Your task to perform on an android device: Find coffee shops on Maps Image 0: 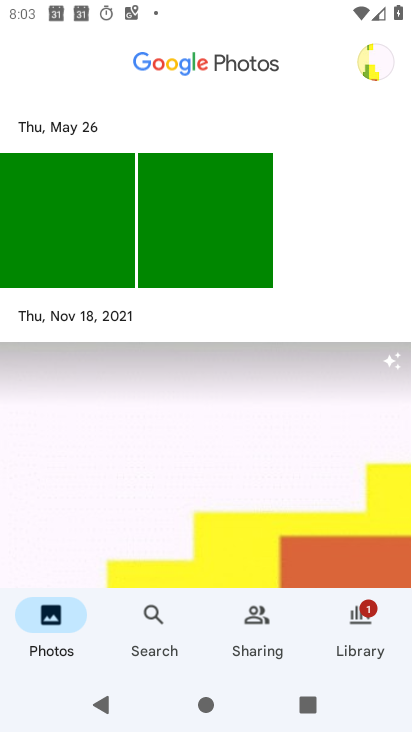
Step 0: press home button
Your task to perform on an android device: Find coffee shops on Maps Image 1: 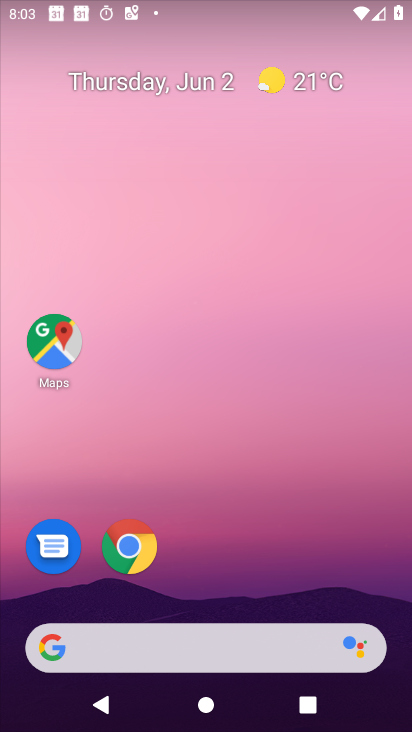
Step 1: drag from (293, 478) to (286, 58)
Your task to perform on an android device: Find coffee shops on Maps Image 2: 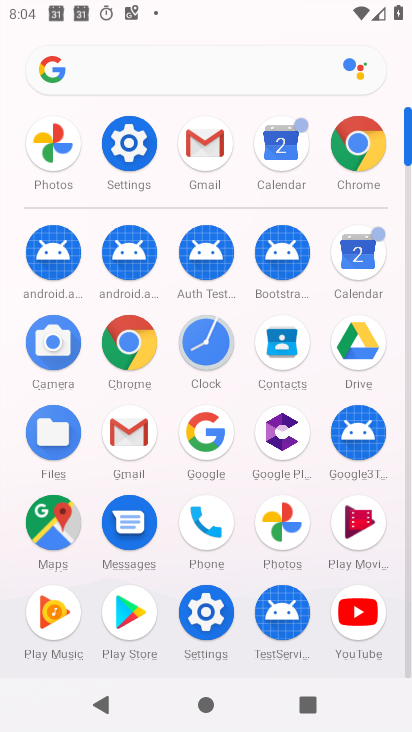
Step 2: click (60, 527)
Your task to perform on an android device: Find coffee shops on Maps Image 3: 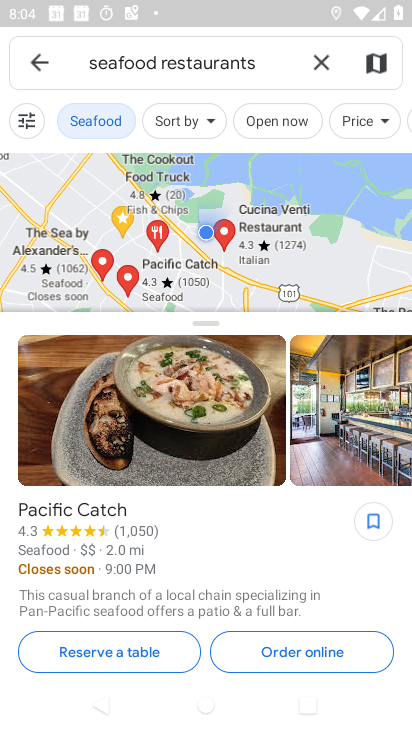
Step 3: click (314, 51)
Your task to perform on an android device: Find coffee shops on Maps Image 4: 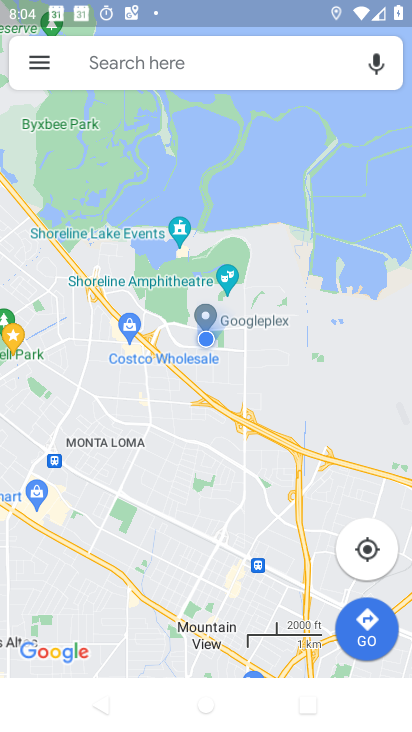
Step 4: click (259, 65)
Your task to perform on an android device: Find coffee shops on Maps Image 5: 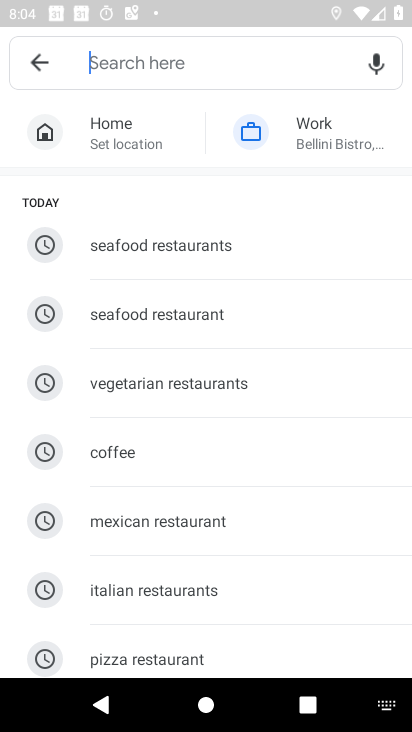
Step 5: type "coffee shop"
Your task to perform on an android device: Find coffee shops on Maps Image 6: 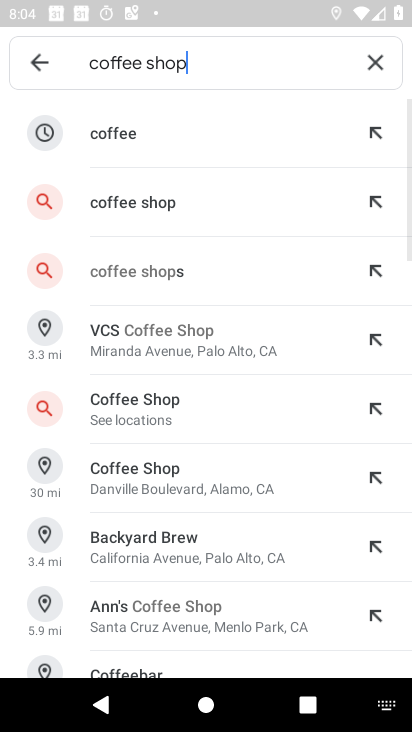
Step 6: click (217, 210)
Your task to perform on an android device: Find coffee shops on Maps Image 7: 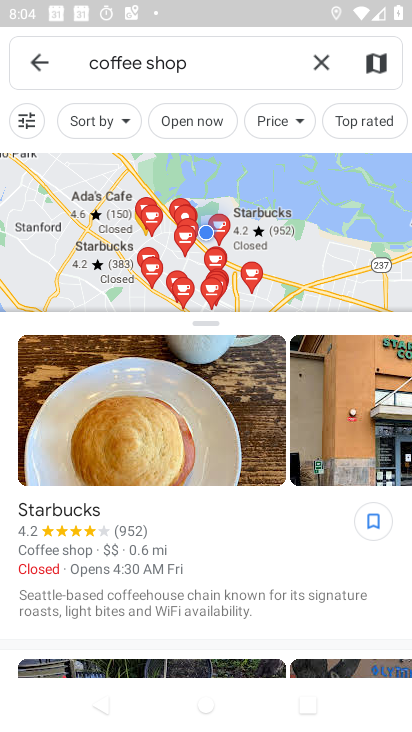
Step 7: task complete